Your task to perform on an android device: Go to Reddit.com Image 0: 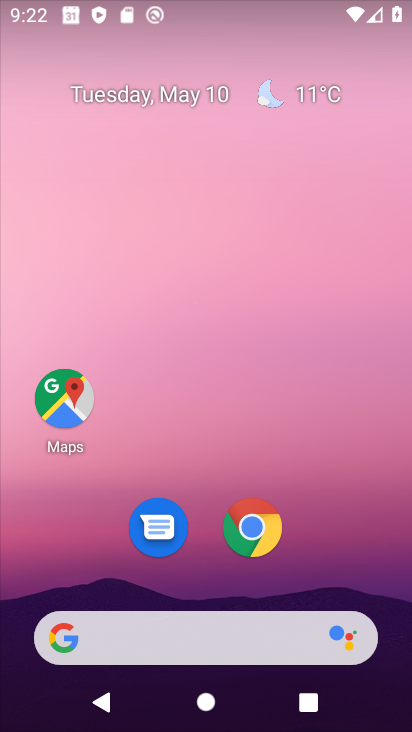
Step 0: click (241, 539)
Your task to perform on an android device: Go to Reddit.com Image 1: 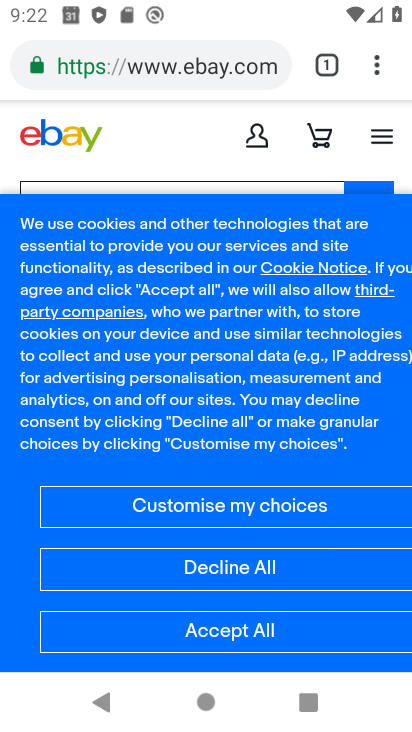
Step 1: click (192, 56)
Your task to perform on an android device: Go to Reddit.com Image 2: 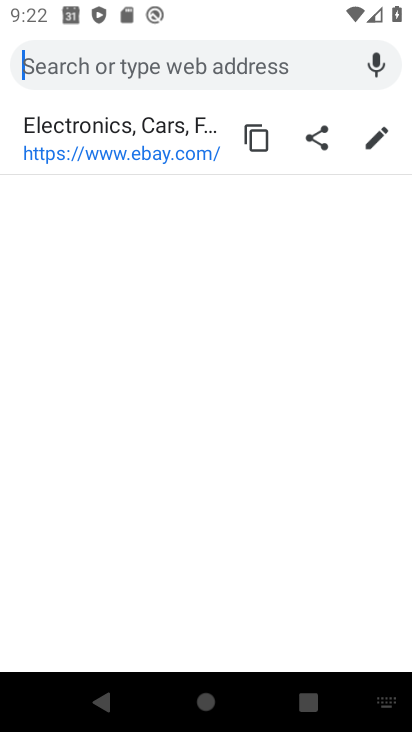
Step 2: type "reddit.com"
Your task to perform on an android device: Go to Reddit.com Image 3: 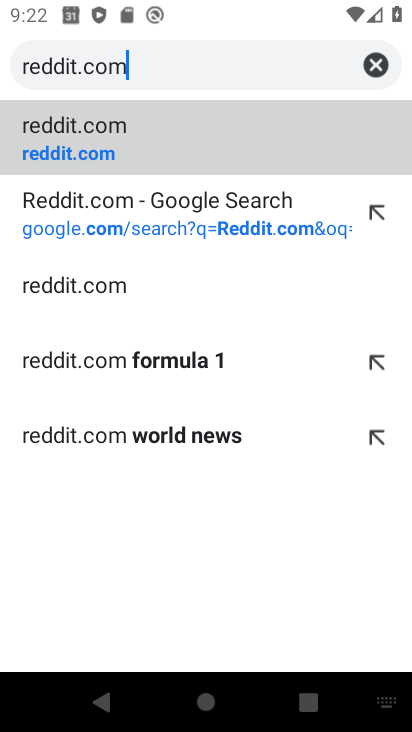
Step 3: click (291, 117)
Your task to perform on an android device: Go to Reddit.com Image 4: 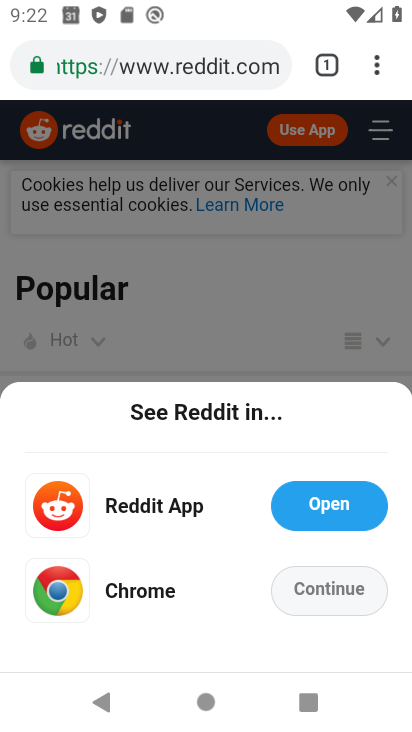
Step 4: task complete